Your task to perform on an android device: Search for sushi restaurants on Maps Image 0: 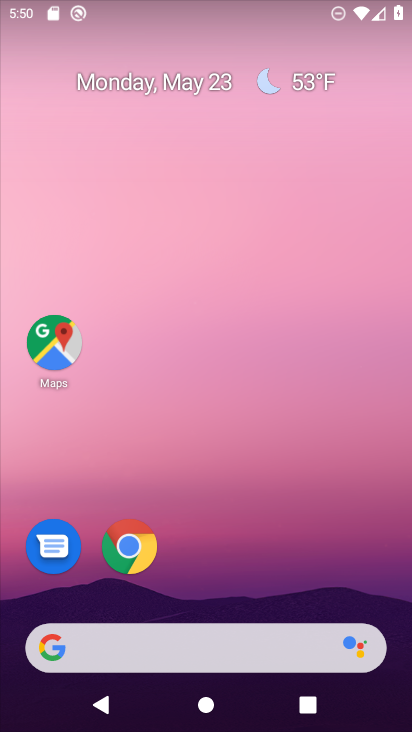
Step 0: click (60, 336)
Your task to perform on an android device: Search for sushi restaurants on Maps Image 1: 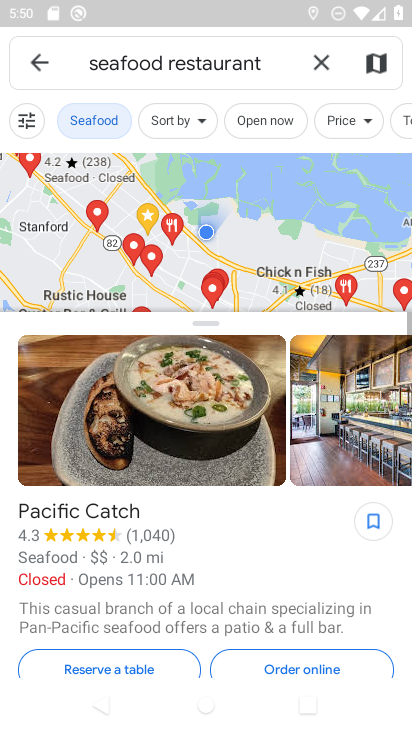
Step 1: click (320, 58)
Your task to perform on an android device: Search for sushi restaurants on Maps Image 2: 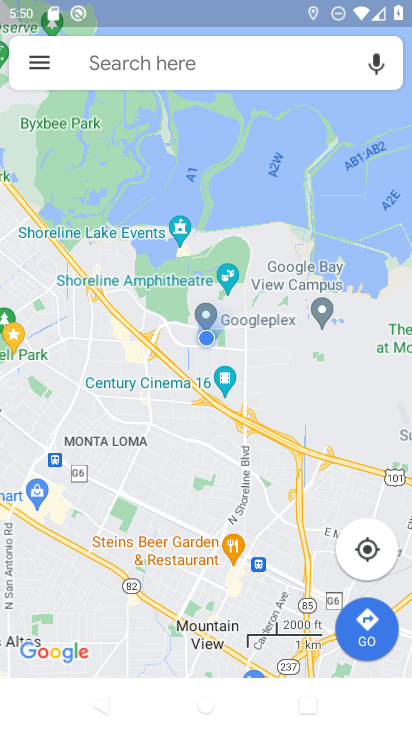
Step 2: click (212, 62)
Your task to perform on an android device: Search for sushi restaurants on Maps Image 3: 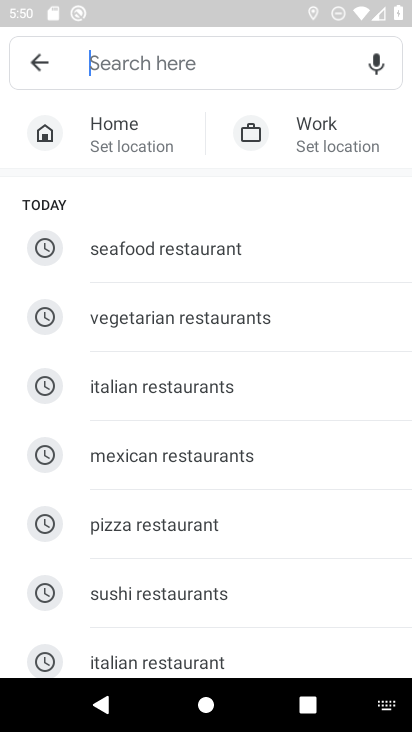
Step 3: click (166, 591)
Your task to perform on an android device: Search for sushi restaurants on Maps Image 4: 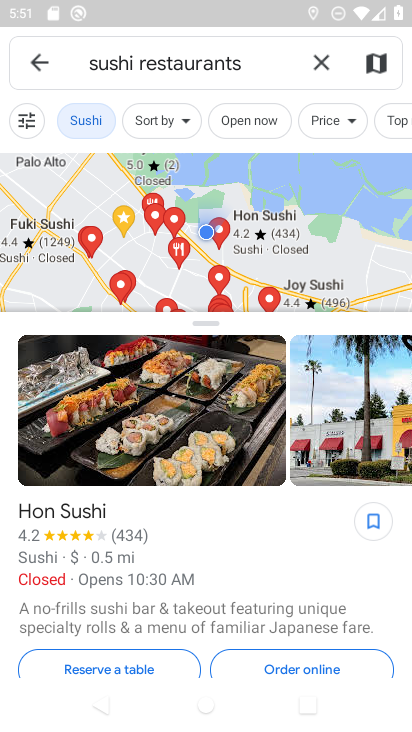
Step 4: task complete